Your task to perform on an android device: Open the Play Movies app and select the watchlist tab. Image 0: 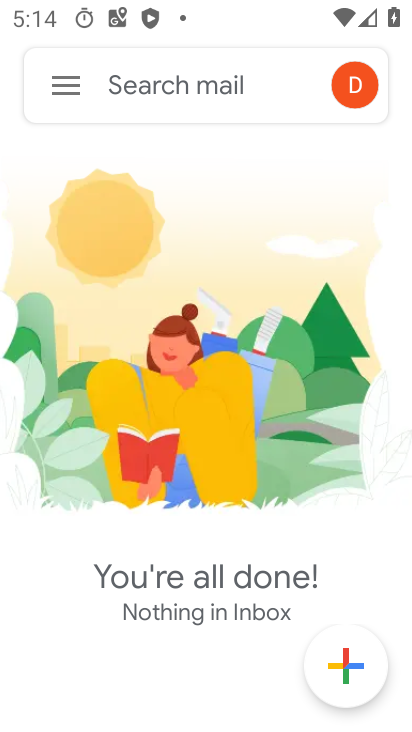
Step 0: press home button
Your task to perform on an android device: Open the Play Movies app and select the watchlist tab. Image 1: 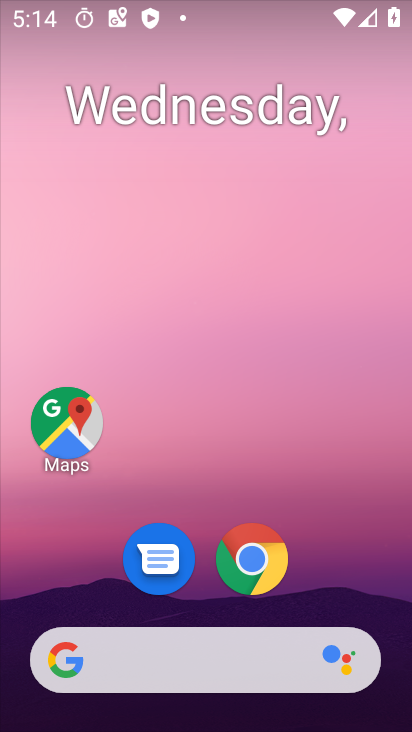
Step 1: drag from (318, 443) to (245, 159)
Your task to perform on an android device: Open the Play Movies app and select the watchlist tab. Image 2: 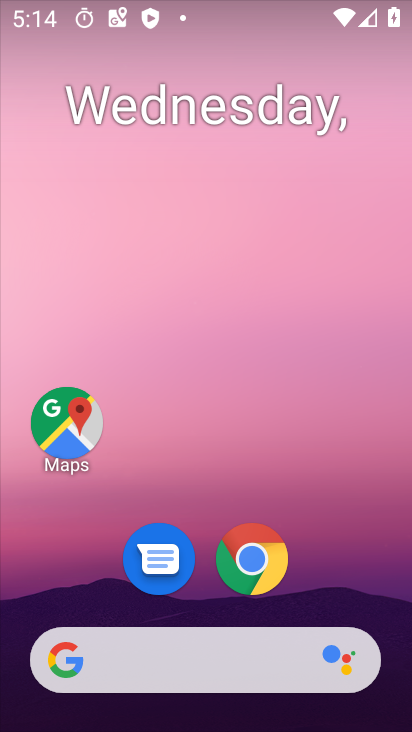
Step 2: drag from (338, 556) to (258, 54)
Your task to perform on an android device: Open the Play Movies app and select the watchlist tab. Image 3: 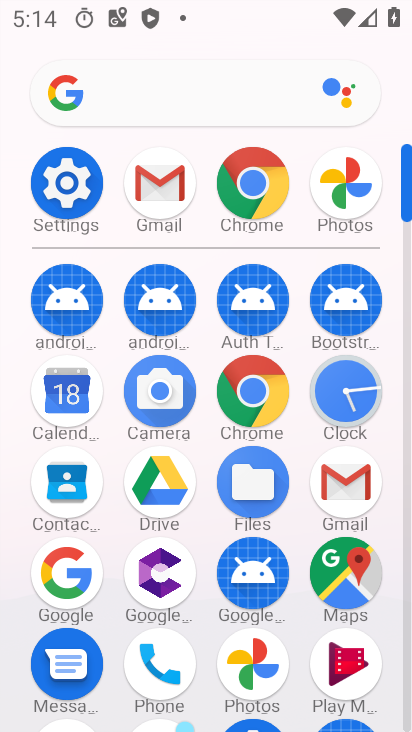
Step 3: click (347, 669)
Your task to perform on an android device: Open the Play Movies app and select the watchlist tab. Image 4: 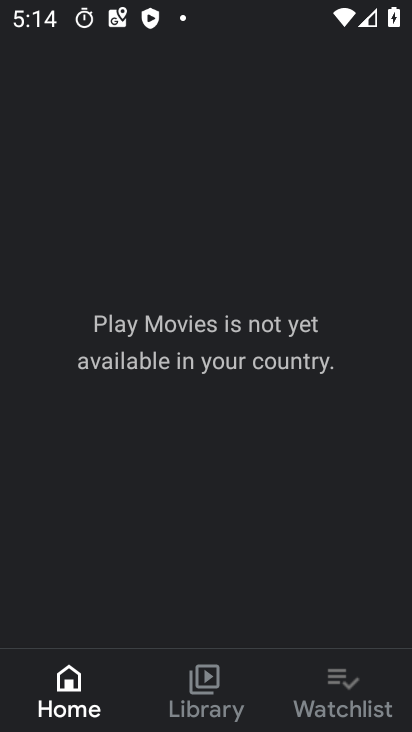
Step 4: click (357, 689)
Your task to perform on an android device: Open the Play Movies app and select the watchlist tab. Image 5: 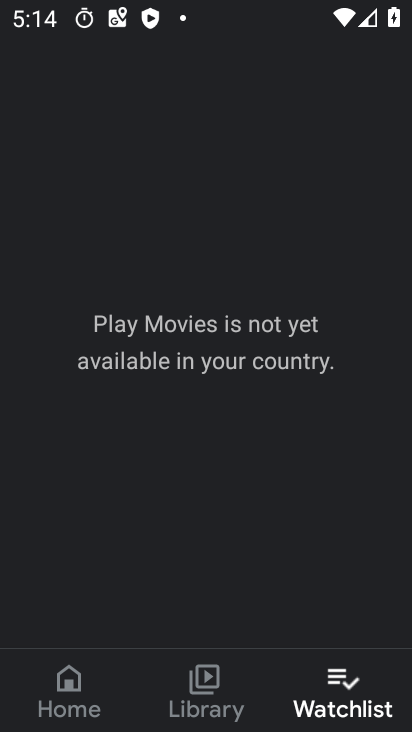
Step 5: task complete